Your task to perform on an android device: Open Chrome and go to settings Image 0: 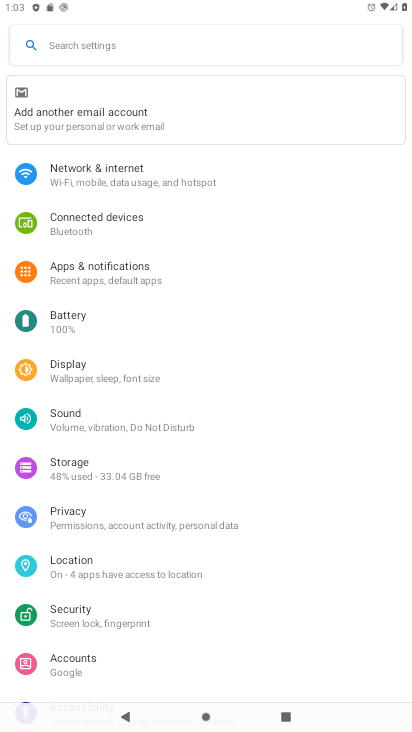
Step 0: press home button
Your task to perform on an android device: Open Chrome and go to settings Image 1: 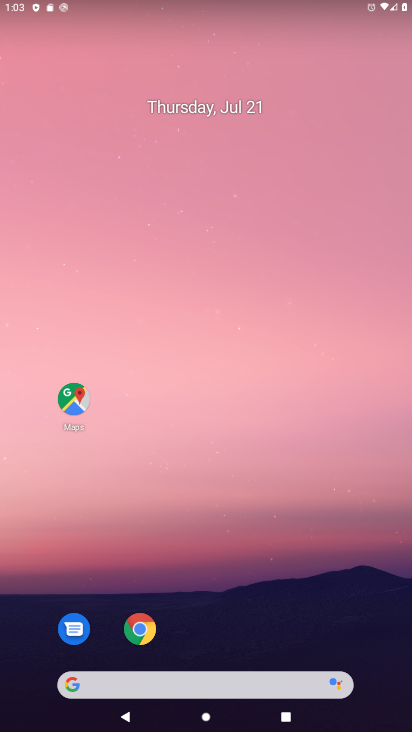
Step 1: click (133, 634)
Your task to perform on an android device: Open Chrome and go to settings Image 2: 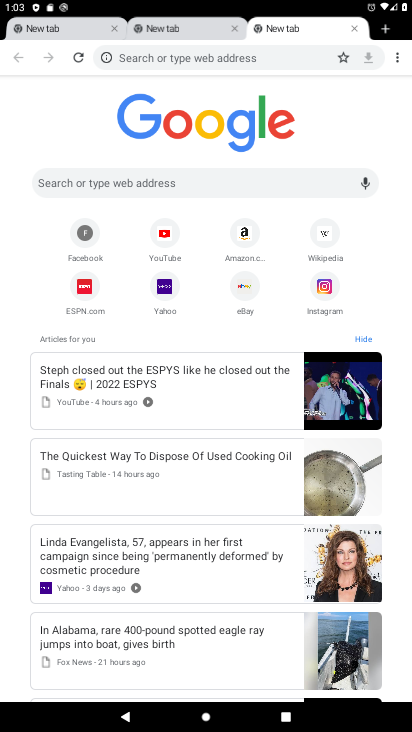
Step 2: click (396, 56)
Your task to perform on an android device: Open Chrome and go to settings Image 3: 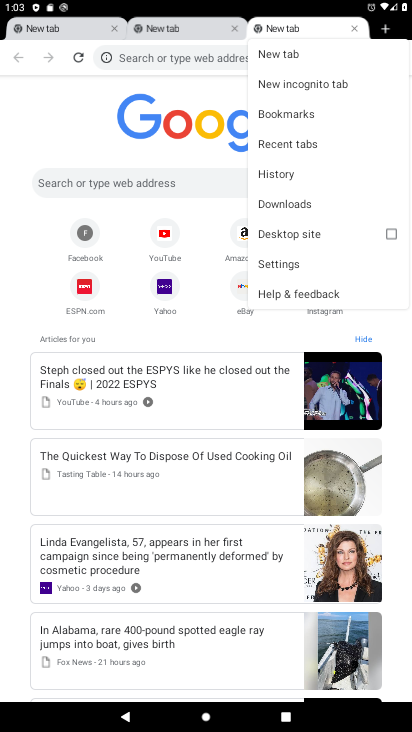
Step 3: click (277, 260)
Your task to perform on an android device: Open Chrome and go to settings Image 4: 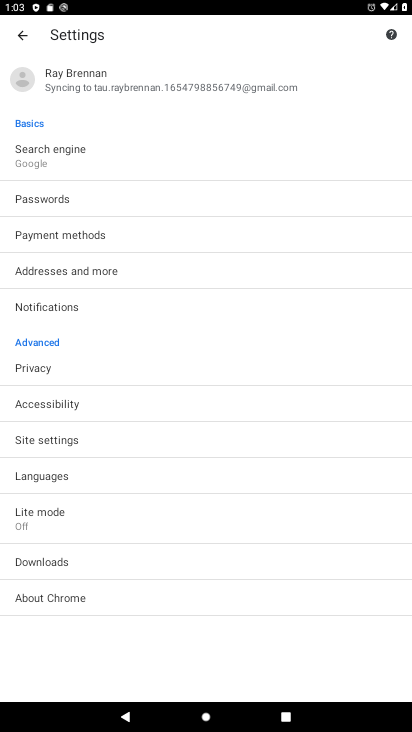
Step 4: task complete